Your task to perform on an android device: open device folders in google photos Image 0: 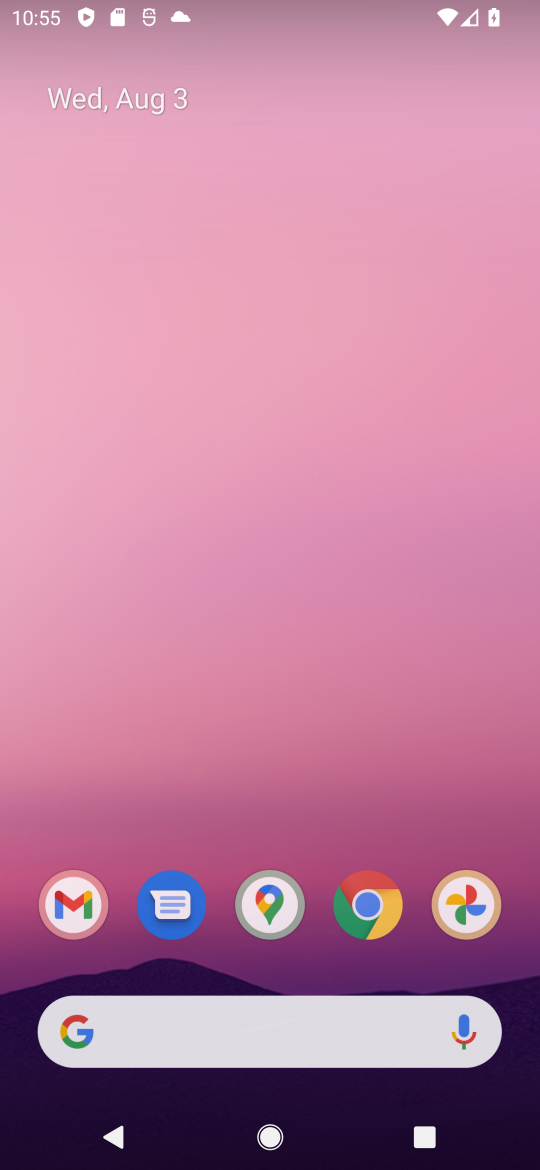
Step 0: press home button
Your task to perform on an android device: open device folders in google photos Image 1: 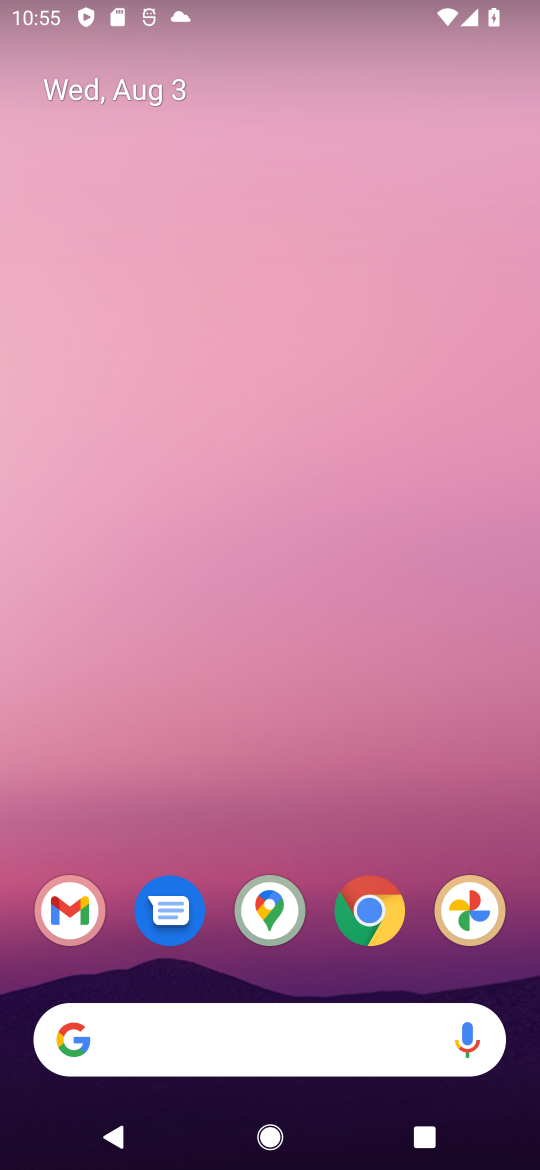
Step 1: click (461, 903)
Your task to perform on an android device: open device folders in google photos Image 2: 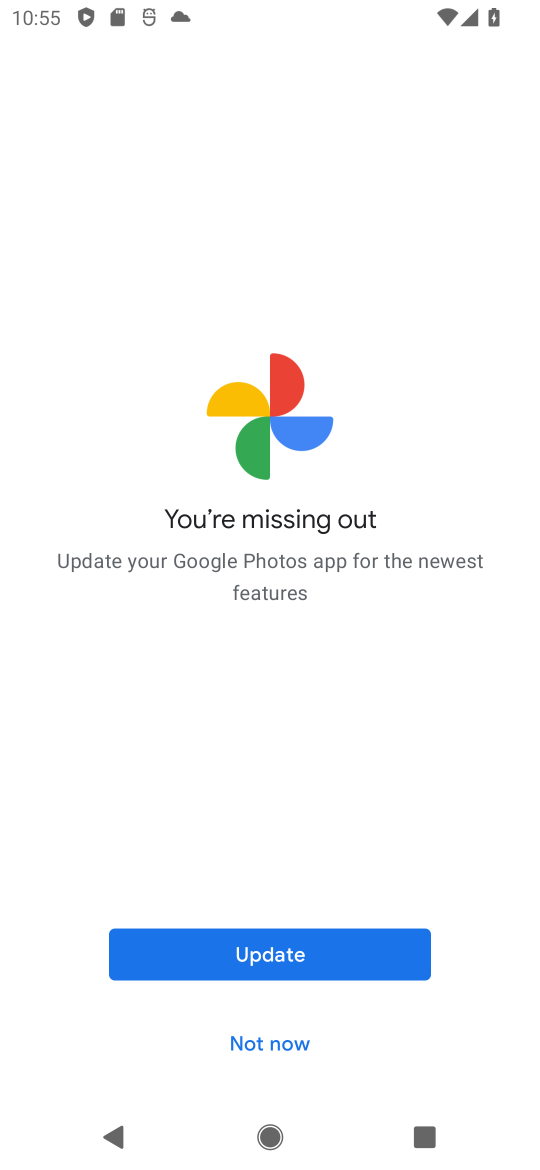
Step 2: click (270, 954)
Your task to perform on an android device: open device folders in google photos Image 3: 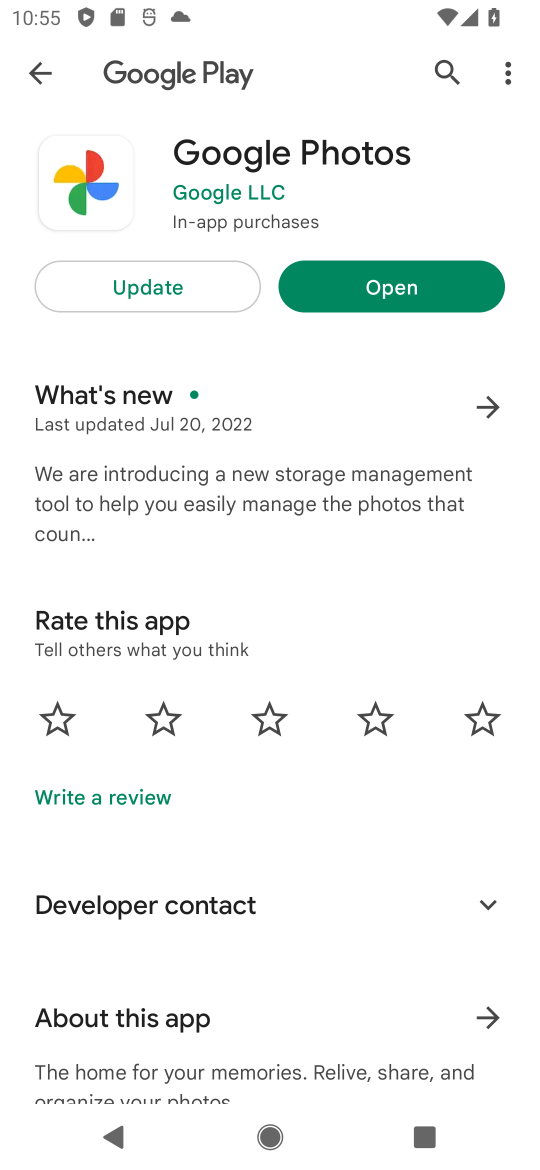
Step 3: click (159, 296)
Your task to perform on an android device: open device folders in google photos Image 4: 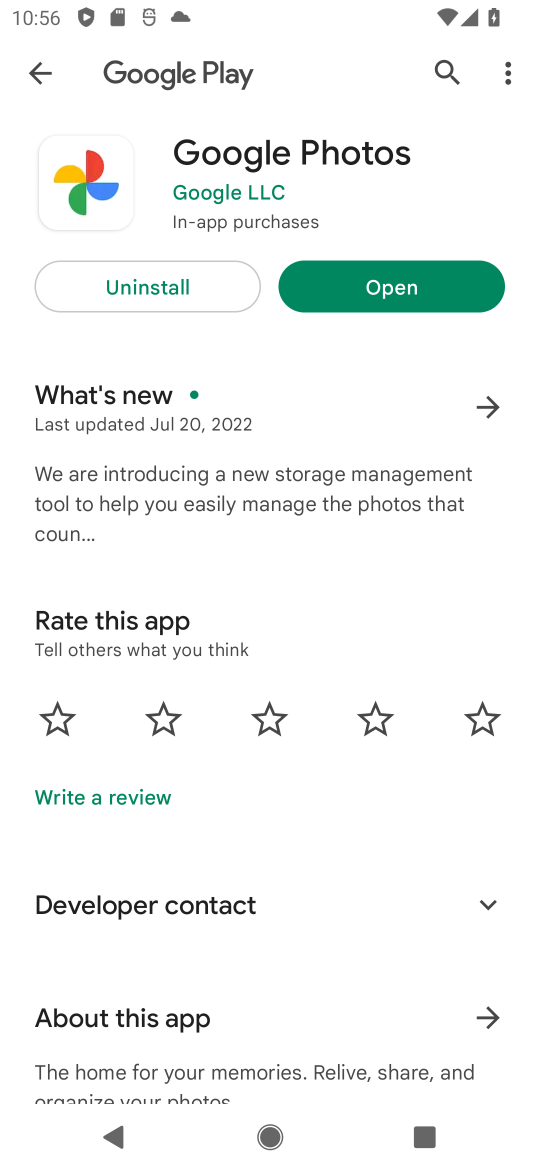
Step 4: click (412, 290)
Your task to perform on an android device: open device folders in google photos Image 5: 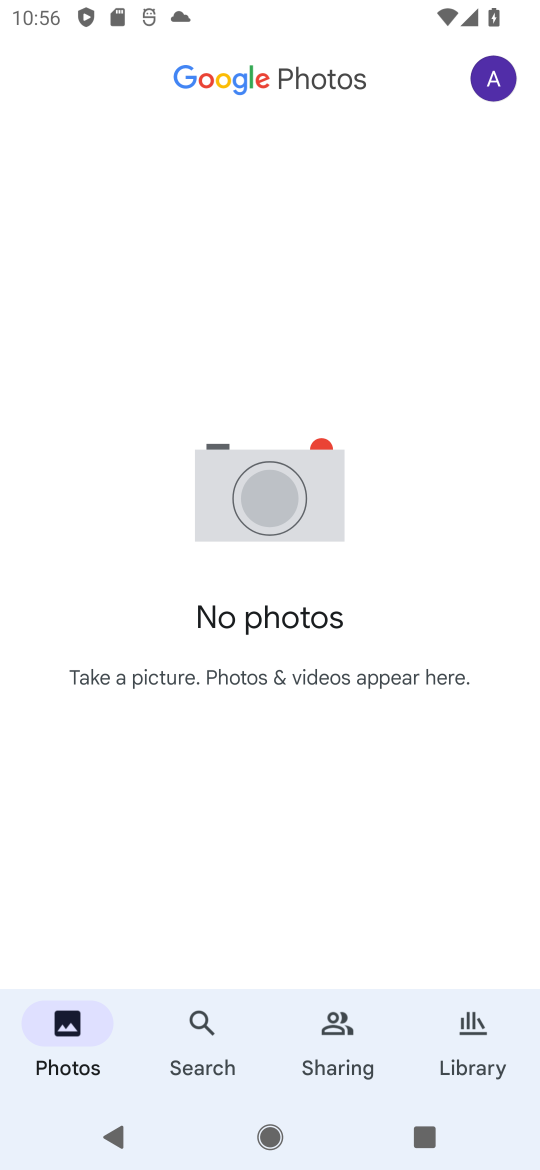
Step 5: click (193, 1048)
Your task to perform on an android device: open device folders in google photos Image 6: 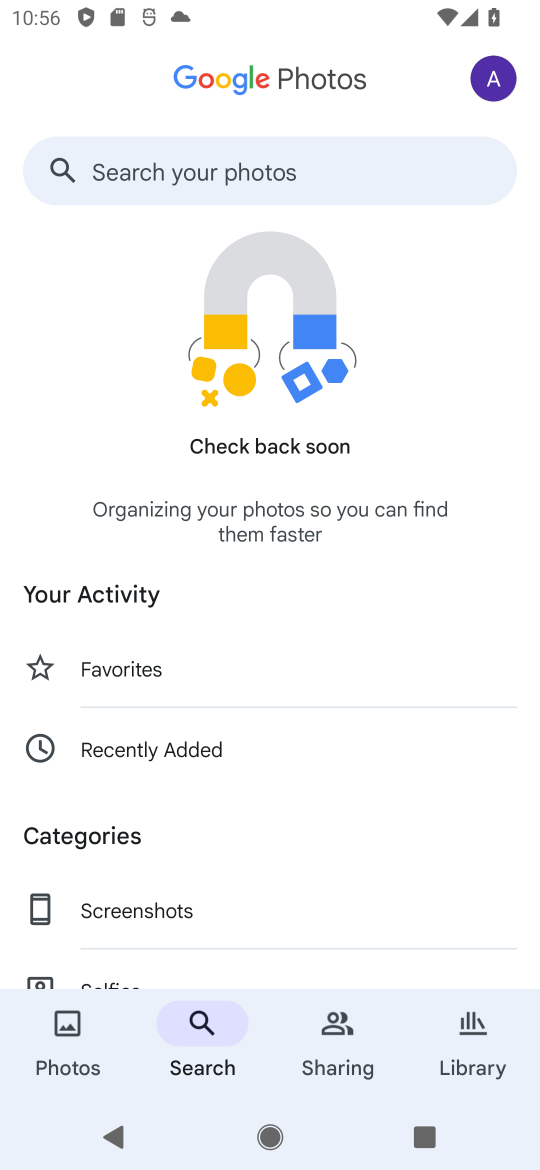
Step 6: click (162, 157)
Your task to perform on an android device: open device folders in google photos Image 7: 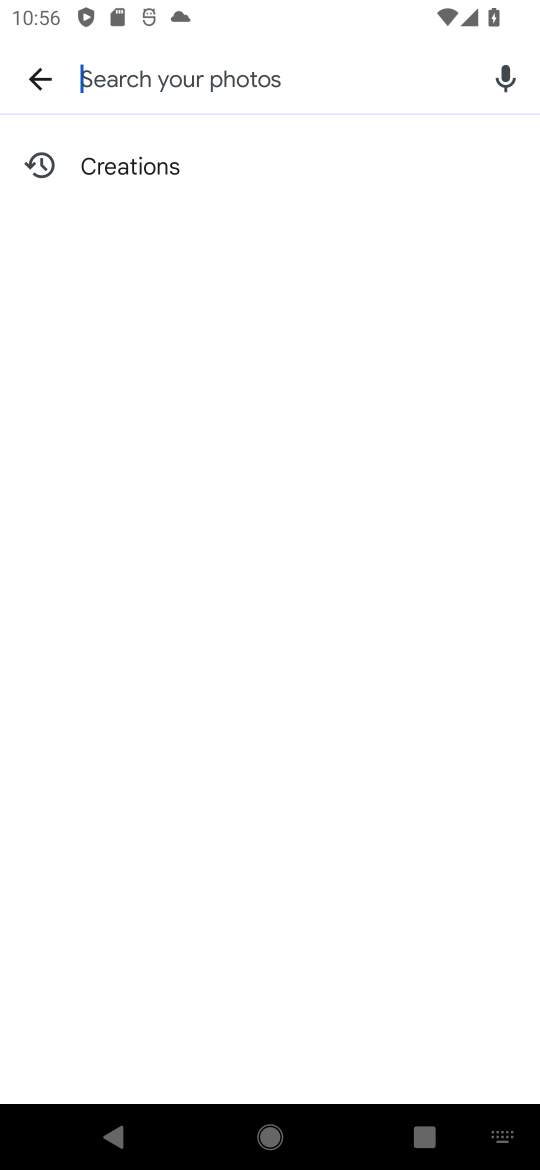
Step 7: type "device"
Your task to perform on an android device: open device folders in google photos Image 8: 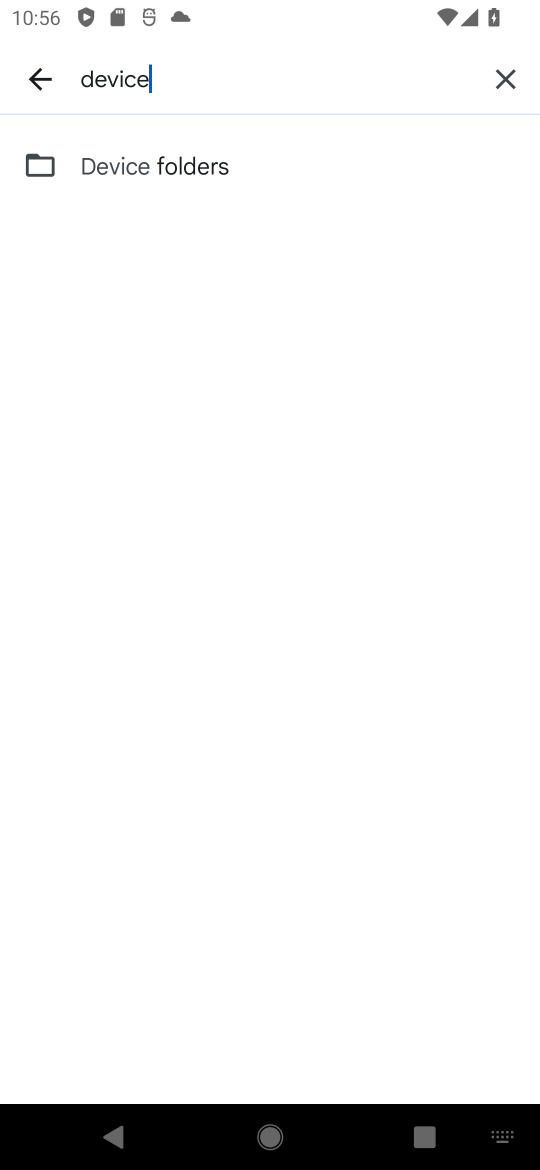
Step 8: click (157, 176)
Your task to perform on an android device: open device folders in google photos Image 9: 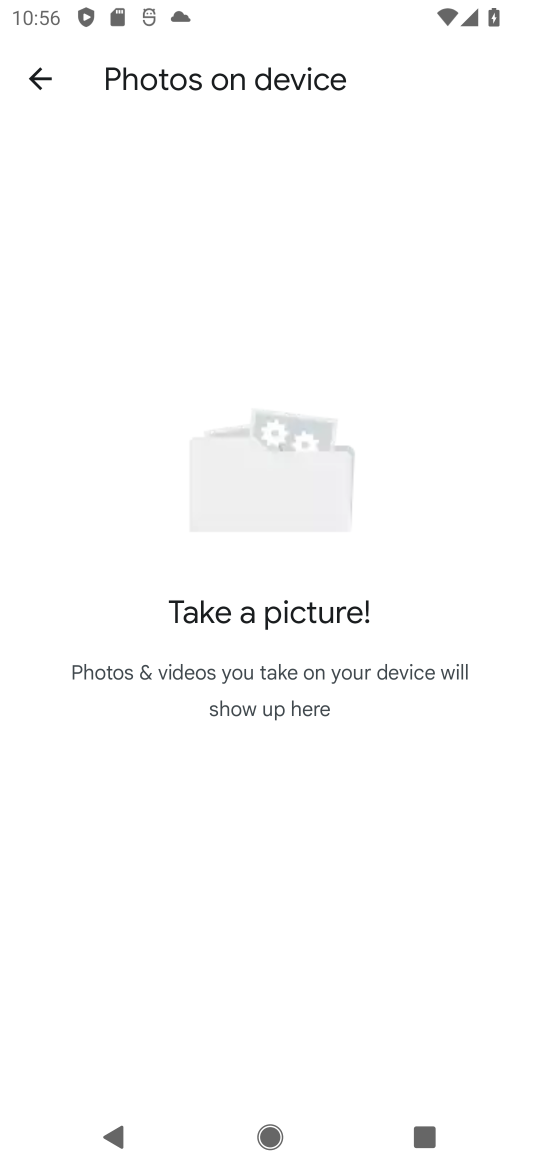
Step 9: task complete